Your task to perform on an android device: Open Google Image 0: 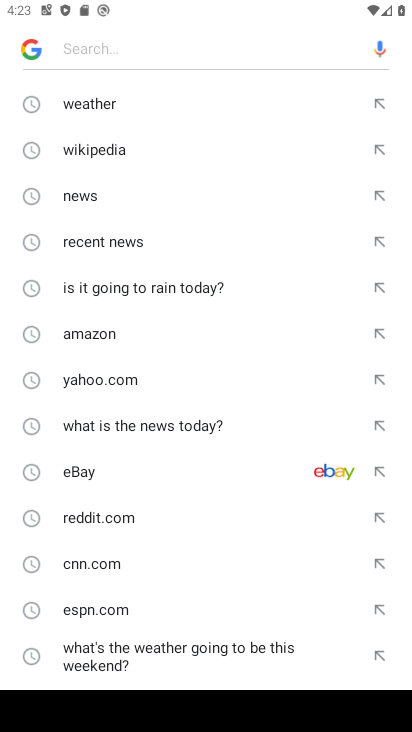
Step 0: press home button
Your task to perform on an android device: Open Google Image 1: 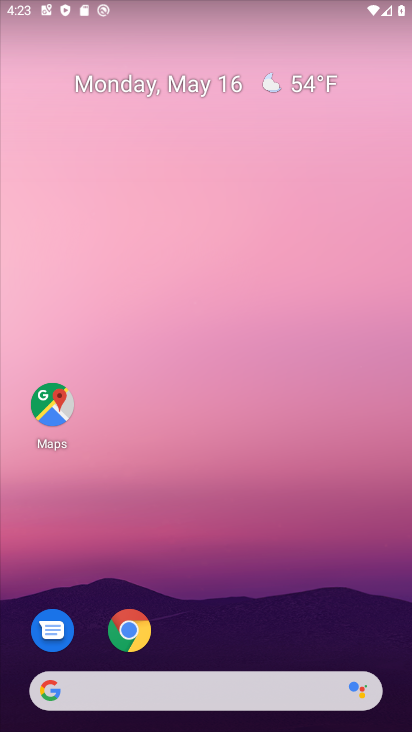
Step 1: drag from (251, 636) to (143, 154)
Your task to perform on an android device: Open Google Image 2: 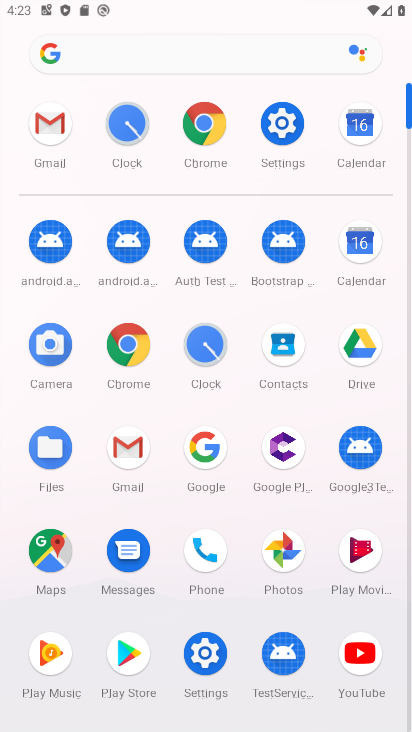
Step 2: click (206, 445)
Your task to perform on an android device: Open Google Image 3: 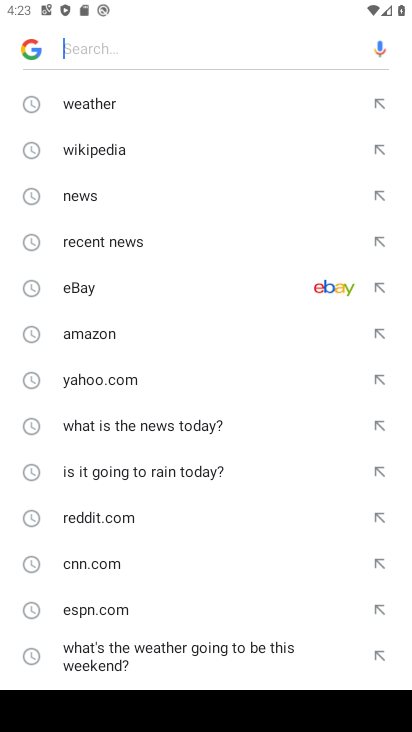
Step 3: task complete